Your task to perform on an android device: Open settings Image 0: 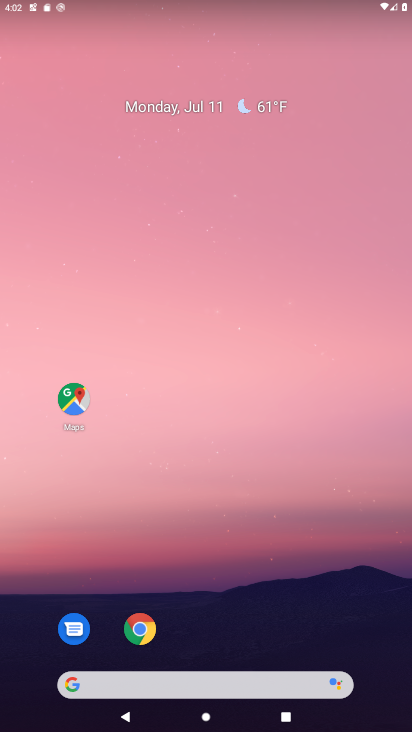
Step 0: drag from (371, 605) to (293, 5)
Your task to perform on an android device: Open settings Image 1: 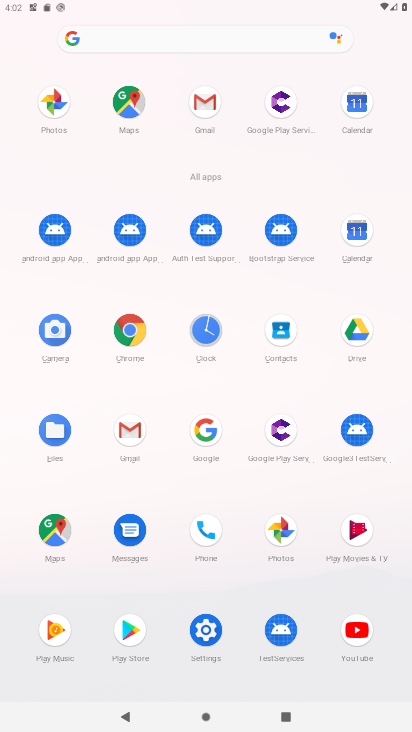
Step 1: click (207, 631)
Your task to perform on an android device: Open settings Image 2: 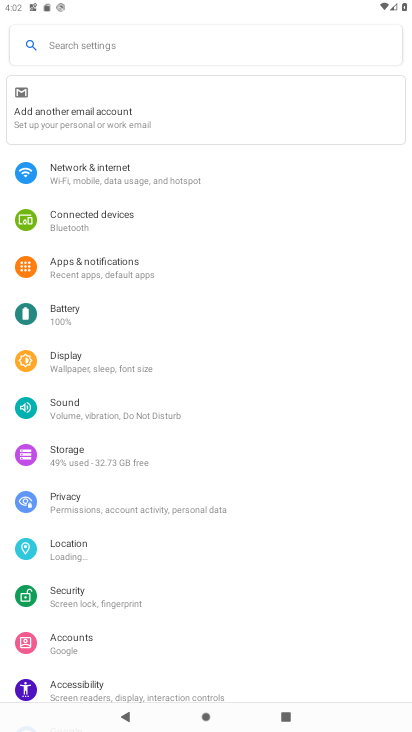
Step 2: task complete